Your task to perform on an android device: open the mobile data screen to see how much data has been used Image 0: 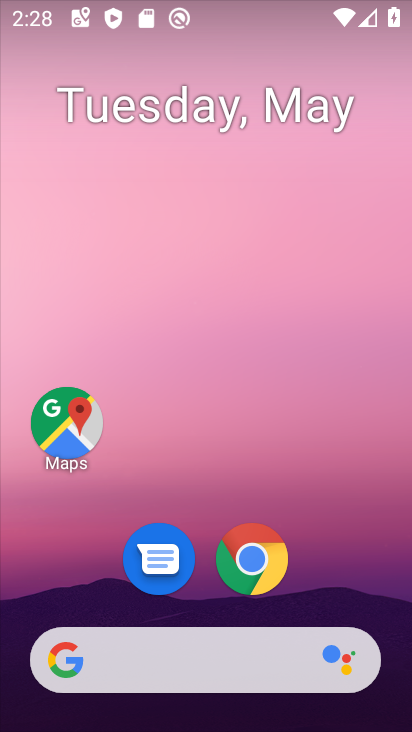
Step 0: drag from (234, 625) to (353, 153)
Your task to perform on an android device: open the mobile data screen to see how much data has been used Image 1: 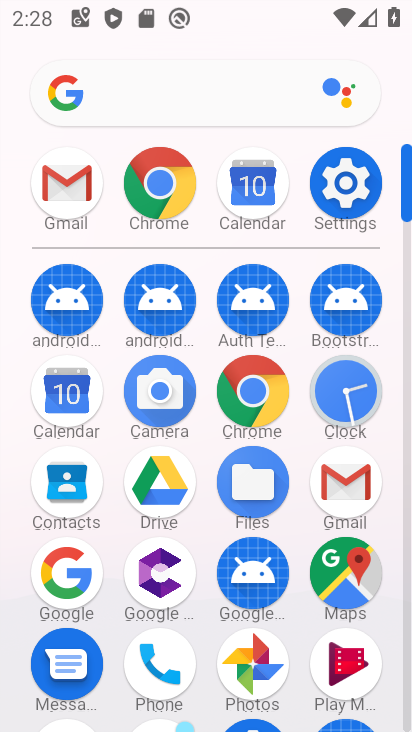
Step 1: click (337, 203)
Your task to perform on an android device: open the mobile data screen to see how much data has been used Image 2: 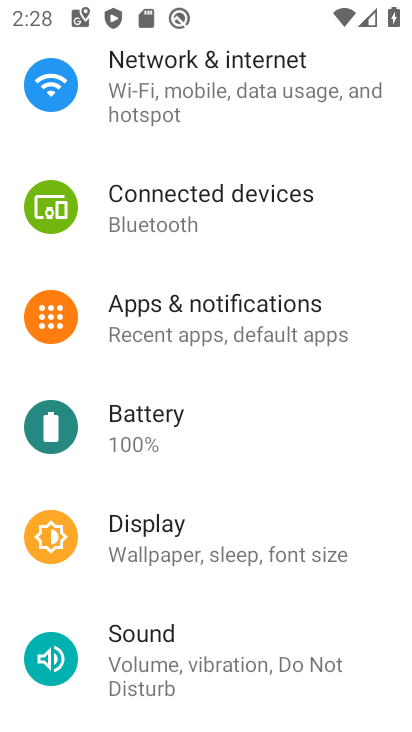
Step 2: click (240, 90)
Your task to perform on an android device: open the mobile data screen to see how much data has been used Image 3: 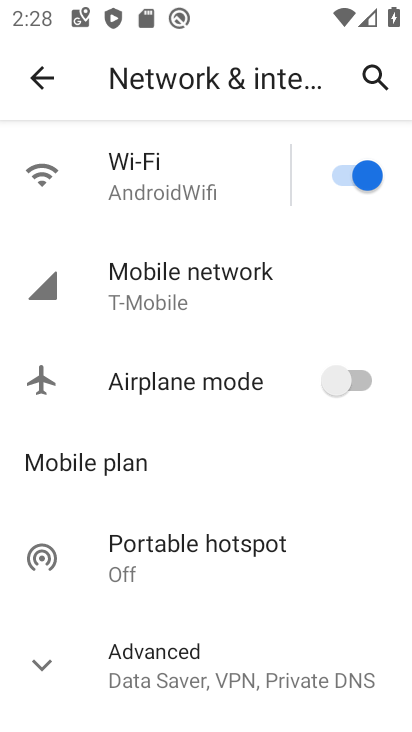
Step 3: click (201, 275)
Your task to perform on an android device: open the mobile data screen to see how much data has been used Image 4: 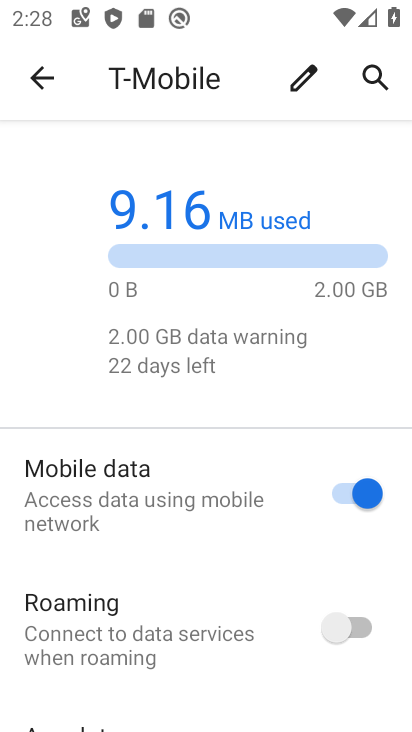
Step 4: task complete